Your task to perform on an android device: View the shopping cart on bestbuy. Add "bose soundlink mini" to the cart on bestbuy, then select checkout. Image 0: 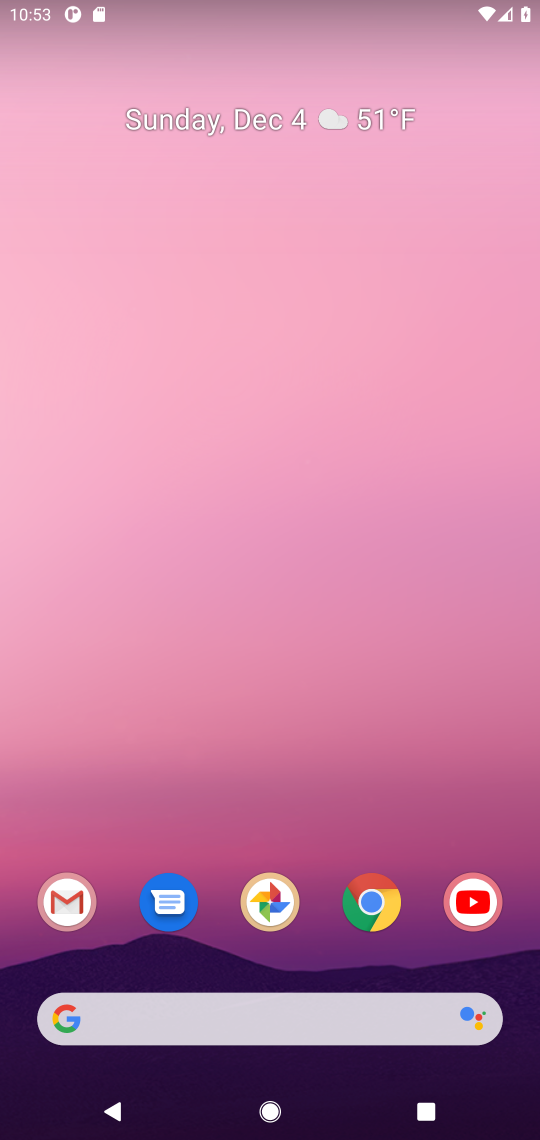
Step 0: click (359, 923)
Your task to perform on an android device: View the shopping cart on bestbuy. Add "bose soundlink mini" to the cart on bestbuy, then select checkout. Image 1: 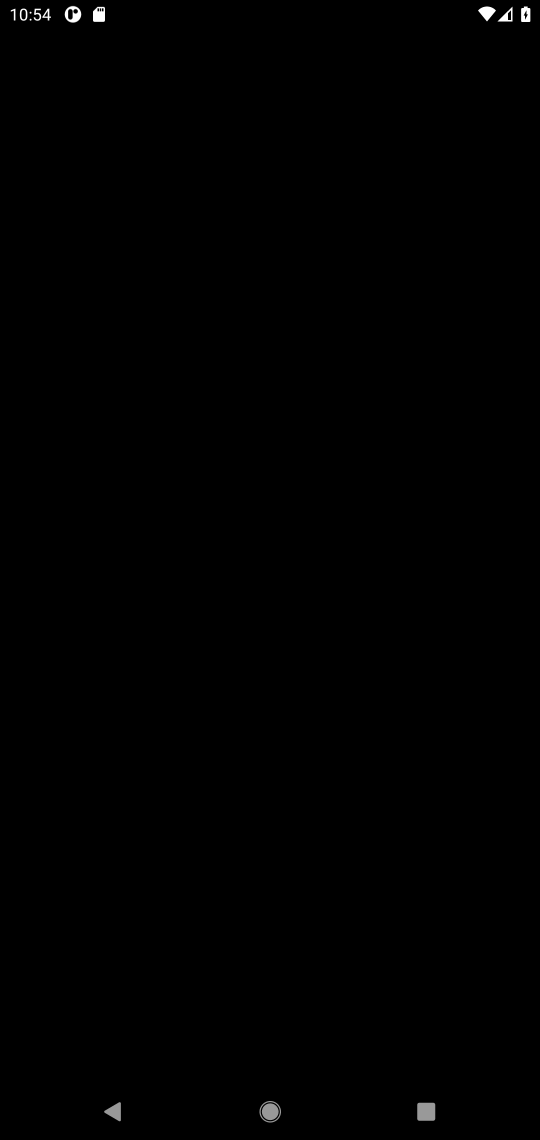
Step 1: press home button
Your task to perform on an android device: View the shopping cart on bestbuy. Add "bose soundlink mini" to the cart on bestbuy, then select checkout. Image 2: 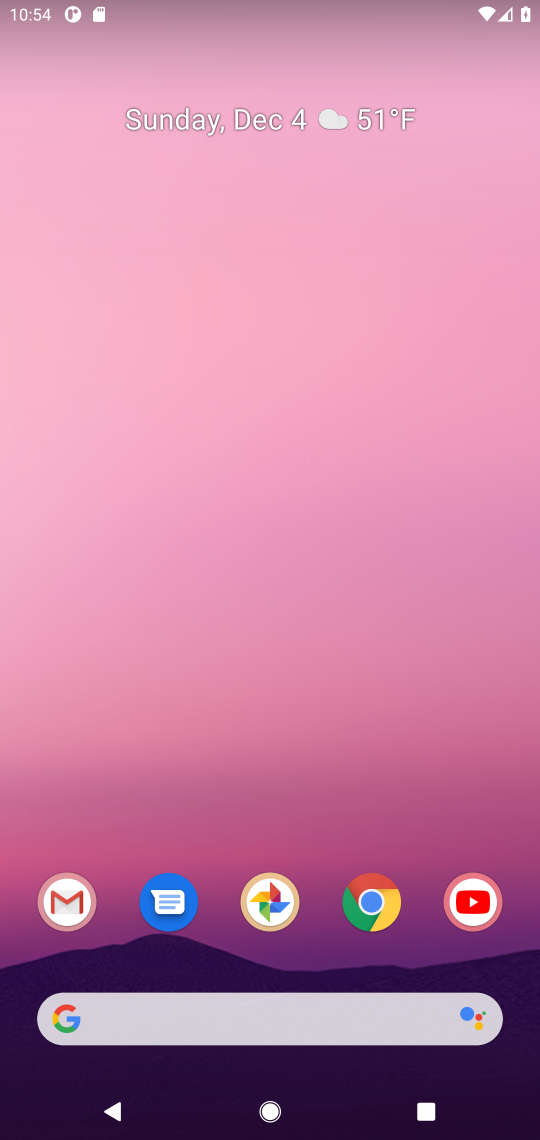
Step 2: press home button
Your task to perform on an android device: View the shopping cart on bestbuy. Add "bose soundlink mini" to the cart on bestbuy, then select checkout. Image 3: 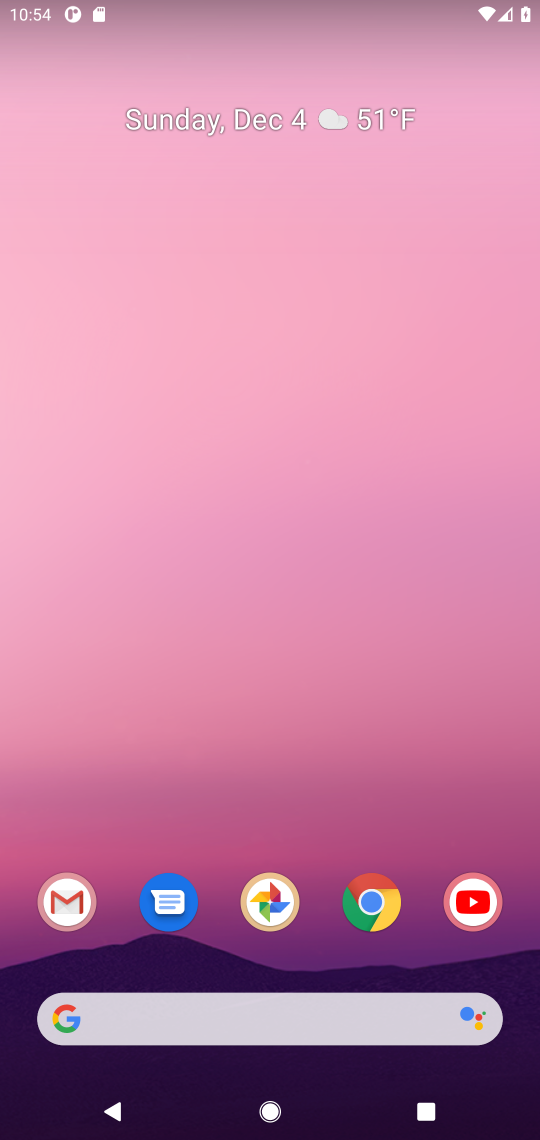
Step 3: press home button
Your task to perform on an android device: View the shopping cart on bestbuy. Add "bose soundlink mini" to the cart on bestbuy, then select checkout. Image 4: 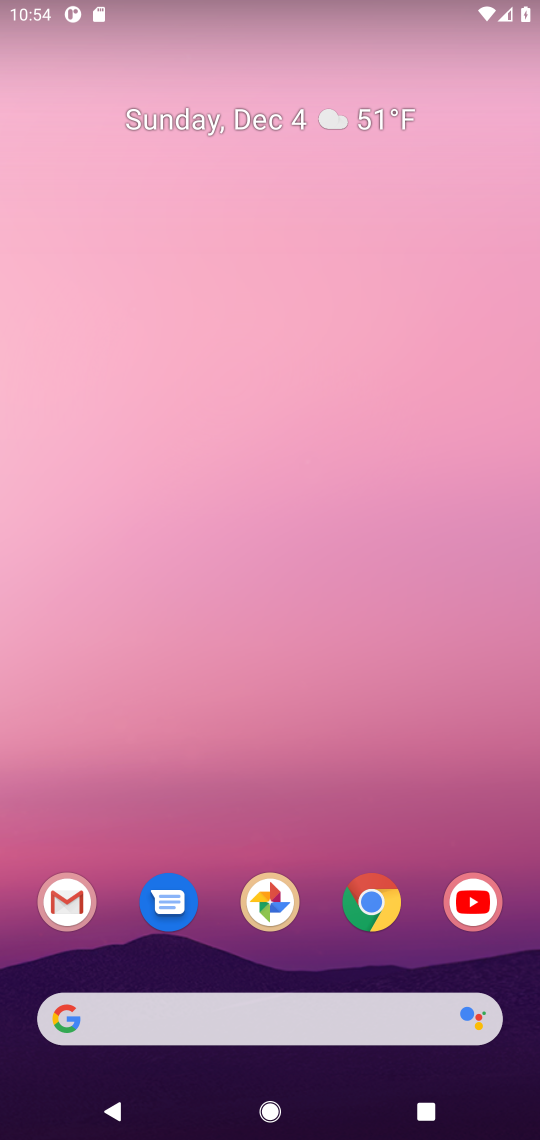
Step 4: click (373, 911)
Your task to perform on an android device: View the shopping cart on bestbuy. Add "bose soundlink mini" to the cart on bestbuy, then select checkout. Image 5: 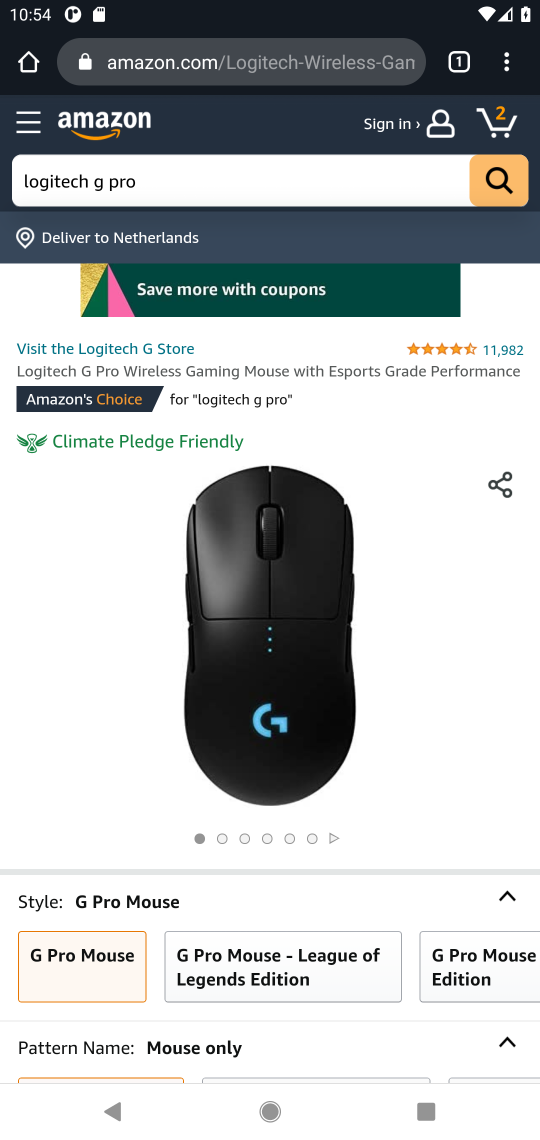
Step 5: click (232, 50)
Your task to perform on an android device: View the shopping cart on bestbuy. Add "bose soundlink mini" to the cart on bestbuy, then select checkout. Image 6: 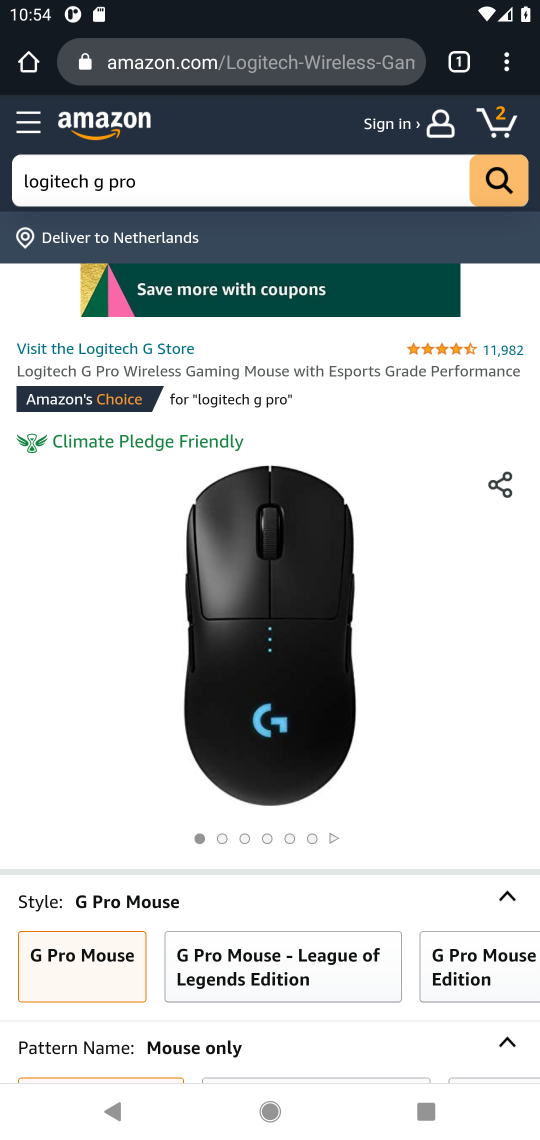
Step 6: click (232, 50)
Your task to perform on an android device: View the shopping cart on bestbuy. Add "bose soundlink mini" to the cart on bestbuy, then select checkout. Image 7: 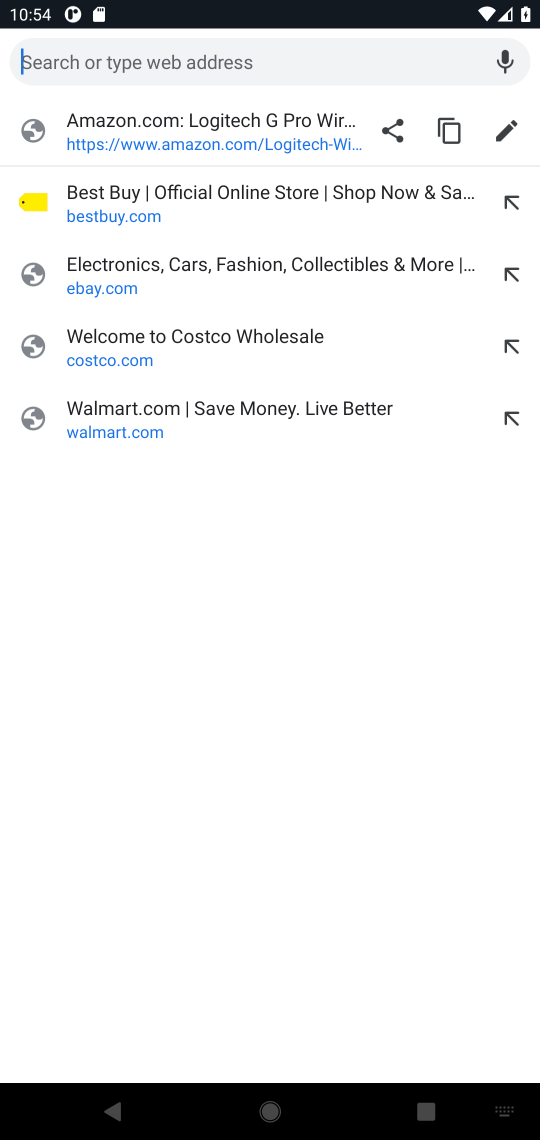
Step 7: click (204, 209)
Your task to perform on an android device: View the shopping cart on bestbuy. Add "bose soundlink mini" to the cart on bestbuy, then select checkout. Image 8: 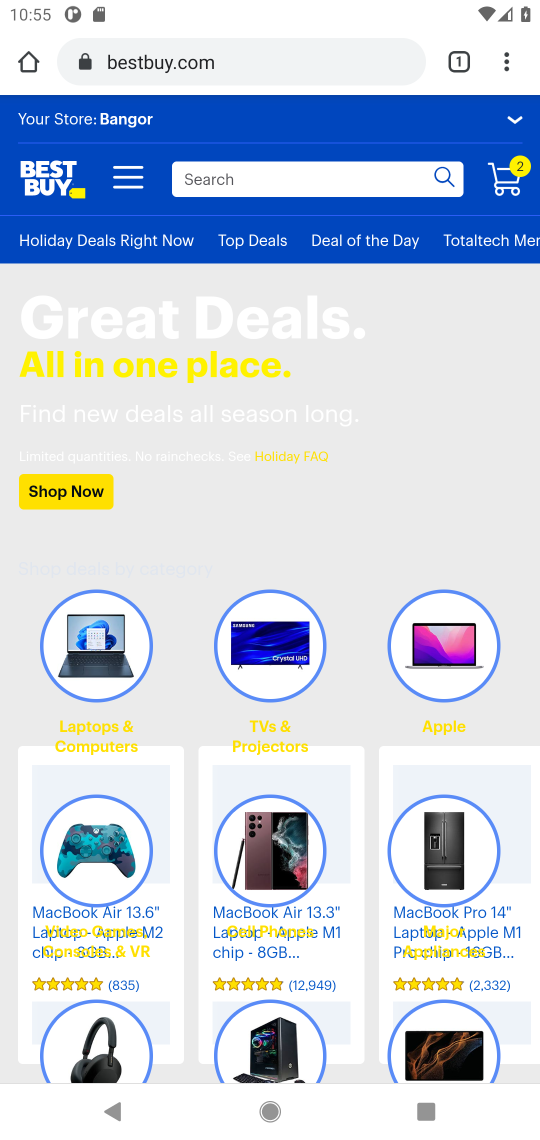
Step 8: click (517, 162)
Your task to perform on an android device: View the shopping cart on bestbuy. Add "bose soundlink mini" to the cart on bestbuy, then select checkout. Image 9: 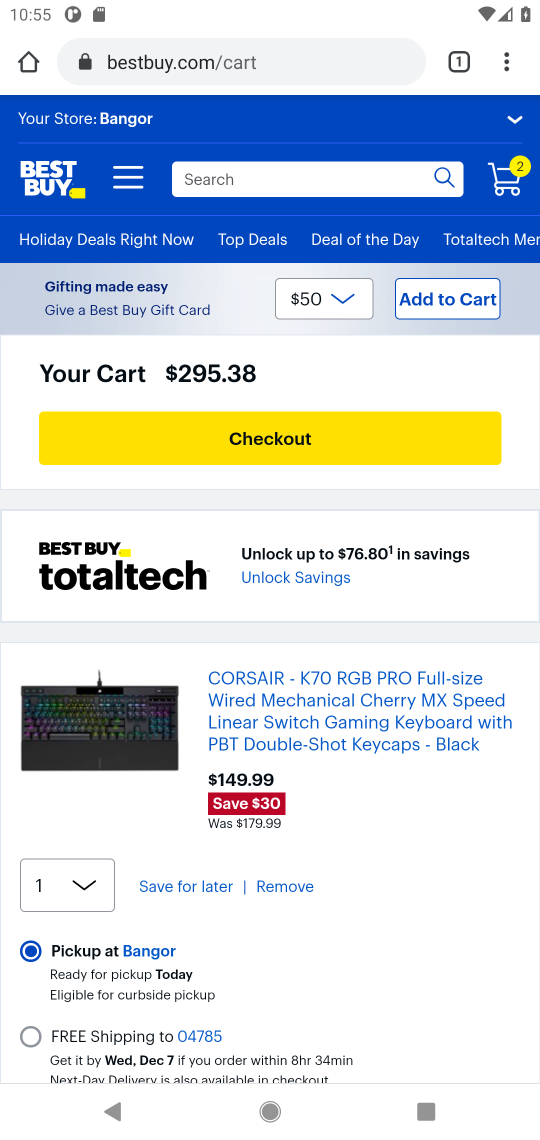
Step 9: click (351, 185)
Your task to perform on an android device: View the shopping cart on bestbuy. Add "bose soundlink mini" to the cart on bestbuy, then select checkout. Image 10: 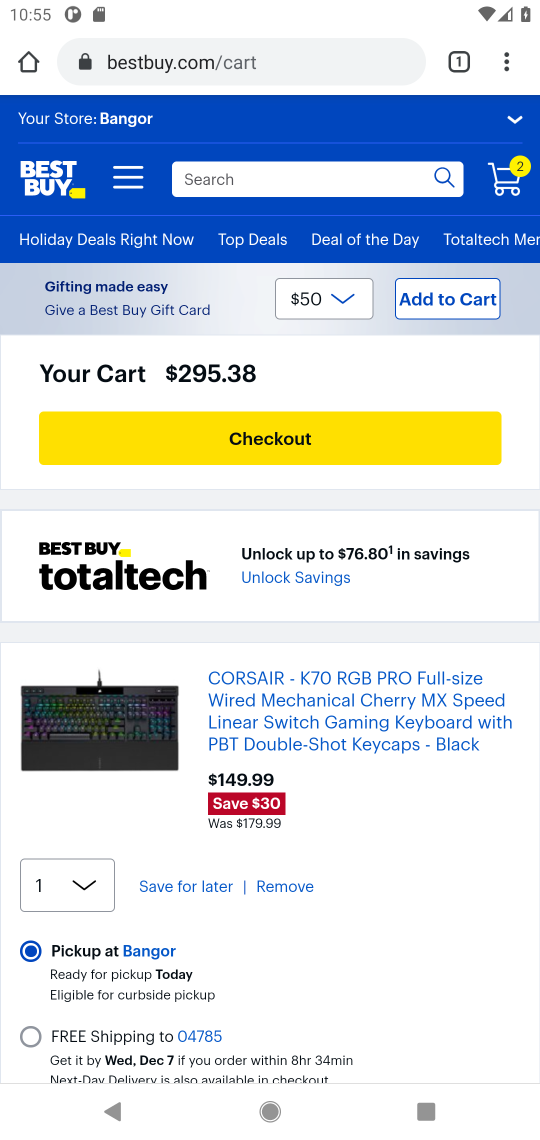
Step 10: click (351, 185)
Your task to perform on an android device: View the shopping cart on bestbuy. Add "bose soundlink mini" to the cart on bestbuy, then select checkout. Image 11: 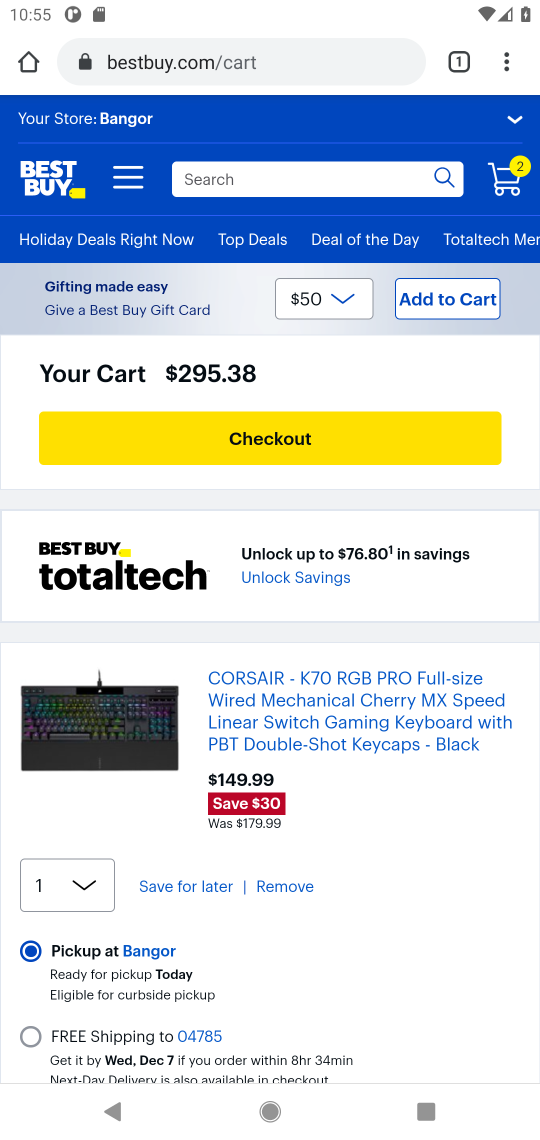
Step 11: type "bose soundlink mini"
Your task to perform on an android device: View the shopping cart on bestbuy. Add "bose soundlink mini" to the cart on bestbuy, then select checkout. Image 12: 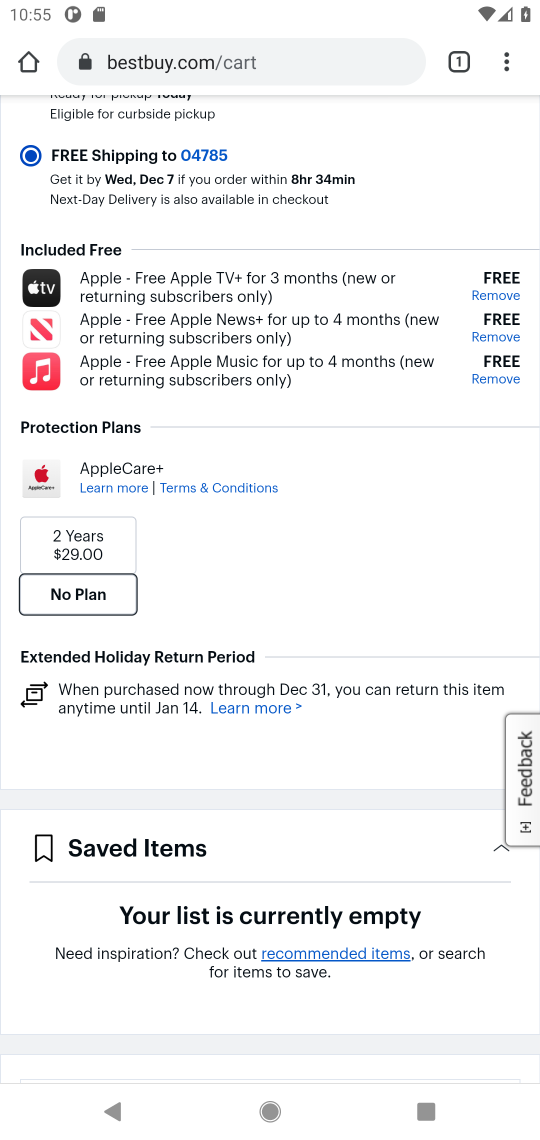
Step 12: drag from (363, 265) to (401, 876)
Your task to perform on an android device: View the shopping cart on bestbuy. Add "bose soundlink mini" to the cart on bestbuy, then select checkout. Image 13: 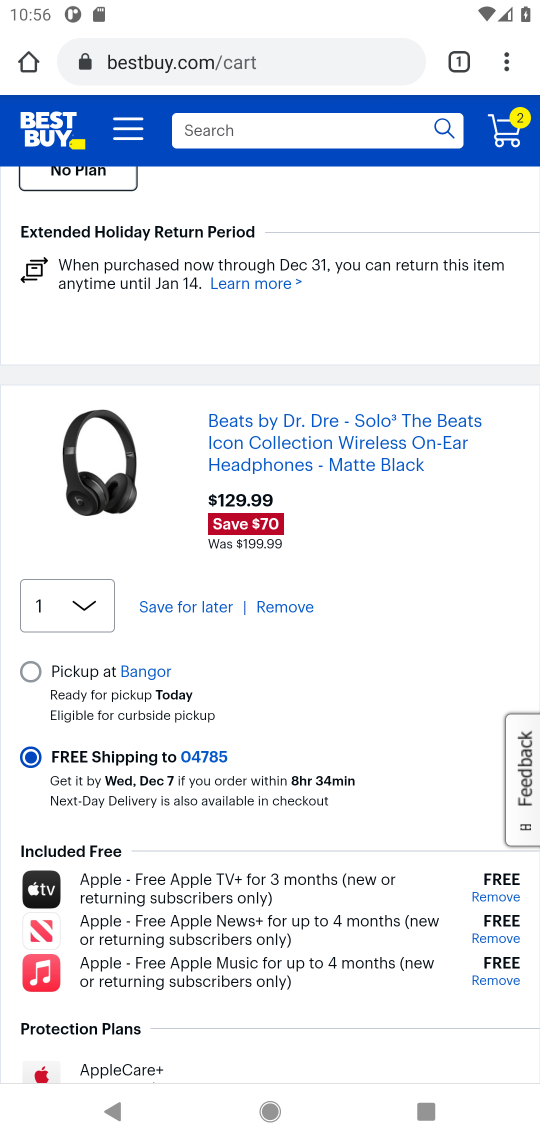
Step 13: drag from (364, 188) to (389, 1072)
Your task to perform on an android device: View the shopping cart on bestbuy. Add "bose soundlink mini" to the cart on bestbuy, then select checkout. Image 14: 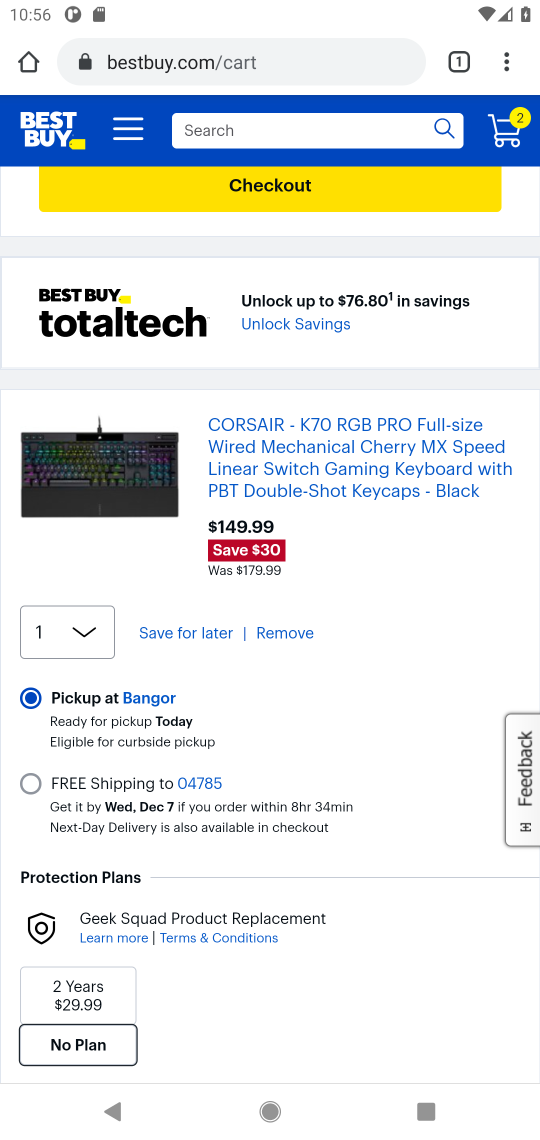
Step 14: click (332, 137)
Your task to perform on an android device: View the shopping cart on bestbuy. Add "bose soundlink mini" to the cart on bestbuy, then select checkout. Image 15: 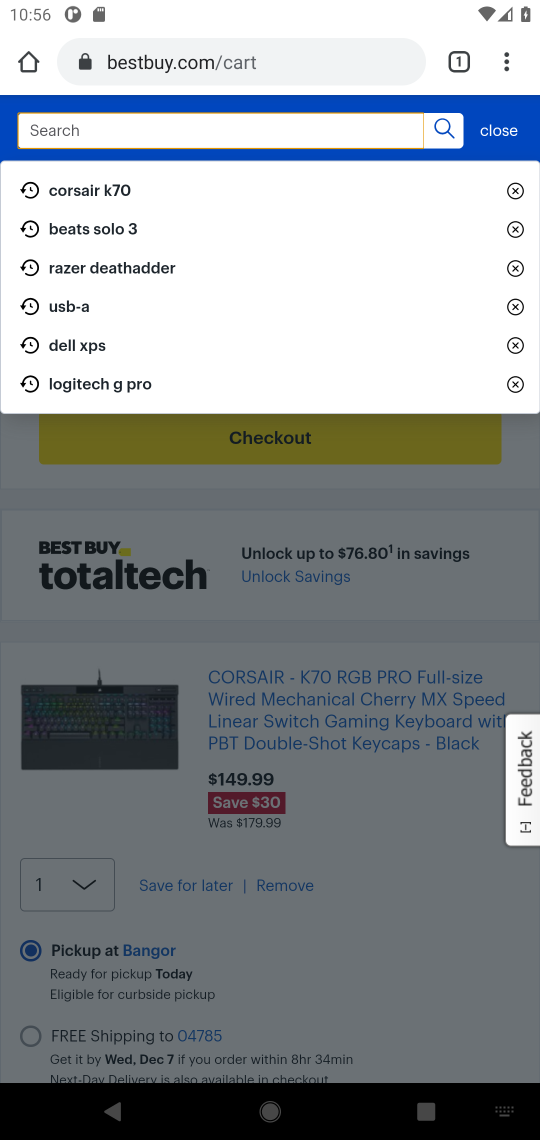
Step 15: type "bose soundlink mini"
Your task to perform on an android device: View the shopping cart on bestbuy. Add "bose soundlink mini" to the cart on bestbuy, then select checkout. Image 16: 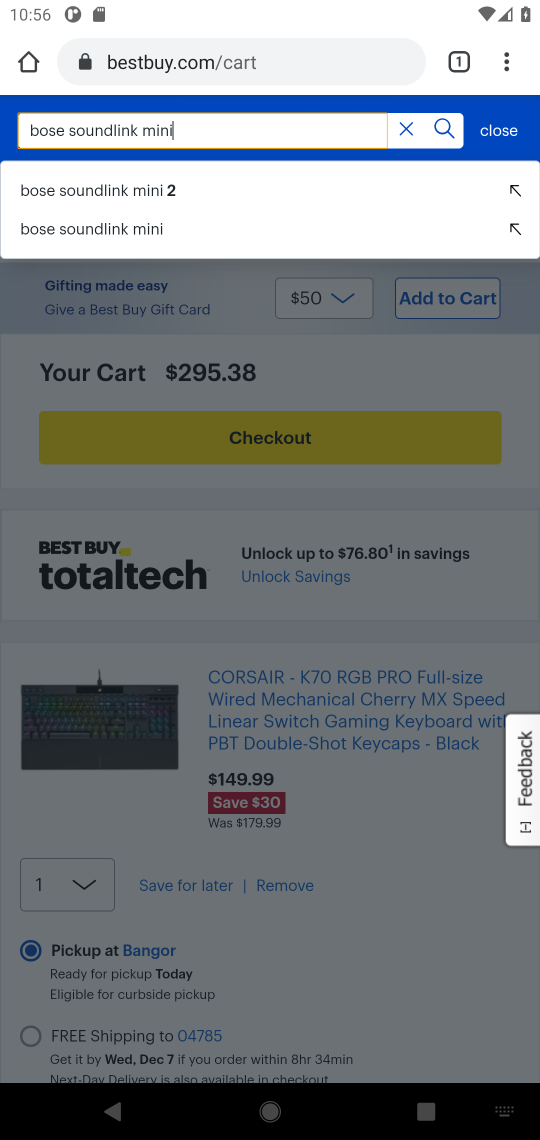
Step 16: click (454, 124)
Your task to perform on an android device: View the shopping cart on bestbuy. Add "bose soundlink mini" to the cart on bestbuy, then select checkout. Image 17: 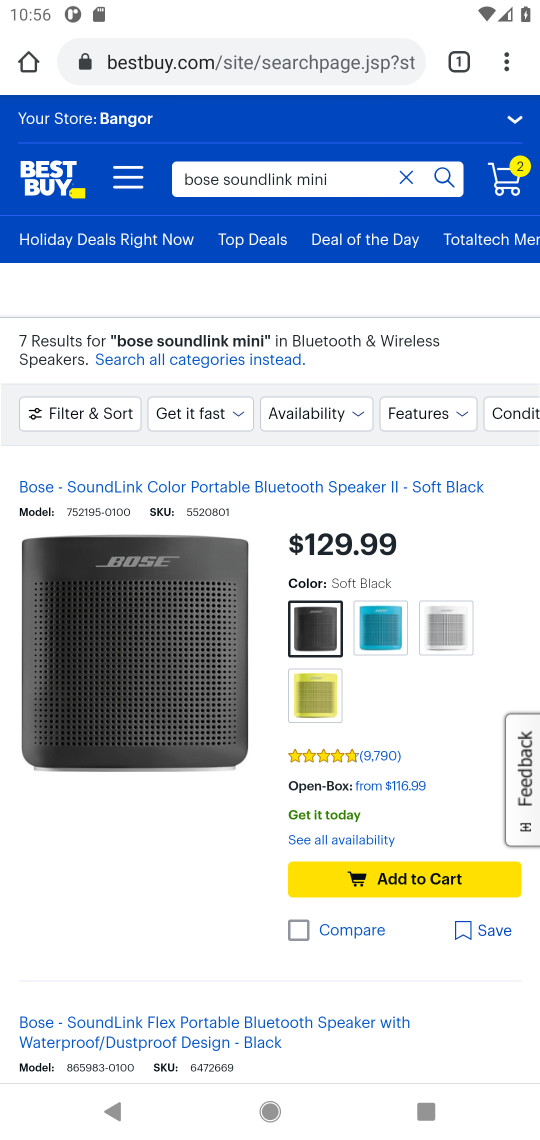
Step 17: click (509, 189)
Your task to perform on an android device: View the shopping cart on bestbuy. Add "bose soundlink mini" to the cart on bestbuy, then select checkout. Image 18: 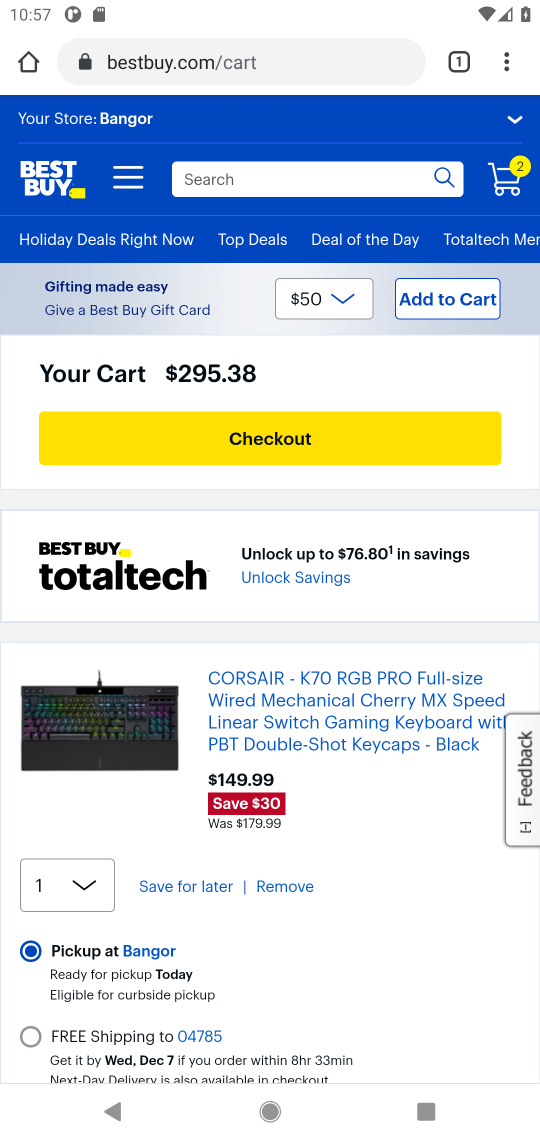
Step 18: click (277, 181)
Your task to perform on an android device: View the shopping cart on bestbuy. Add "bose soundlink mini" to the cart on bestbuy, then select checkout. Image 19: 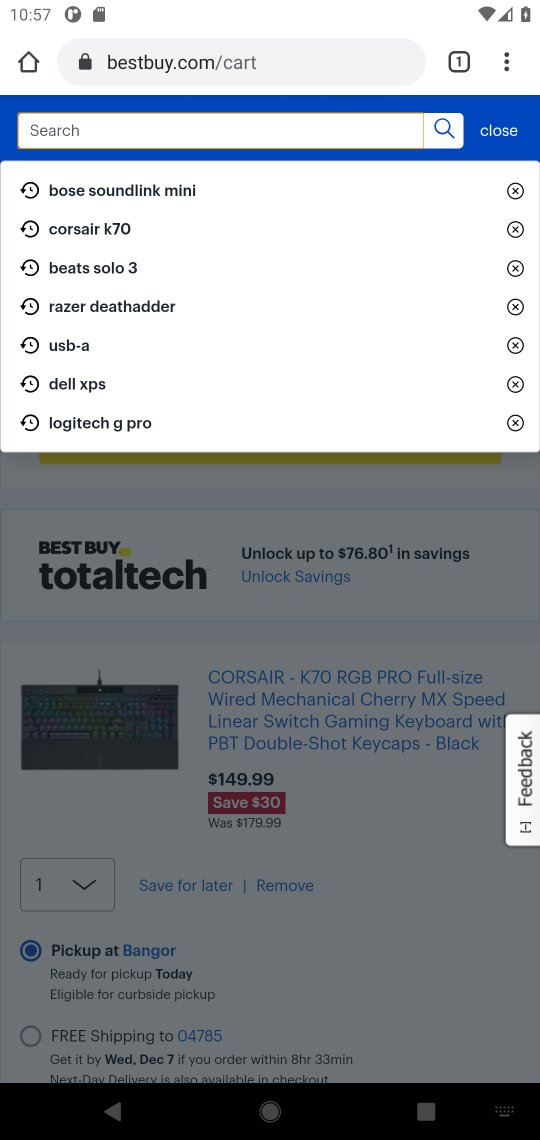
Step 19: type "bose soundlink mini"
Your task to perform on an android device: View the shopping cart on bestbuy. Add "bose soundlink mini" to the cart on bestbuy, then select checkout. Image 20: 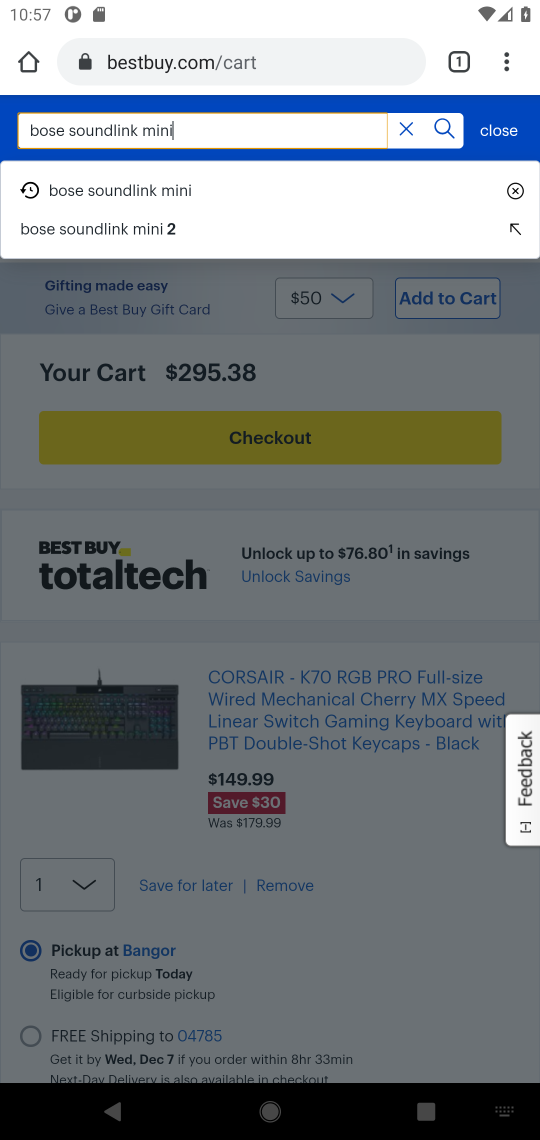
Step 20: click (446, 118)
Your task to perform on an android device: View the shopping cart on bestbuy. Add "bose soundlink mini" to the cart on bestbuy, then select checkout. Image 21: 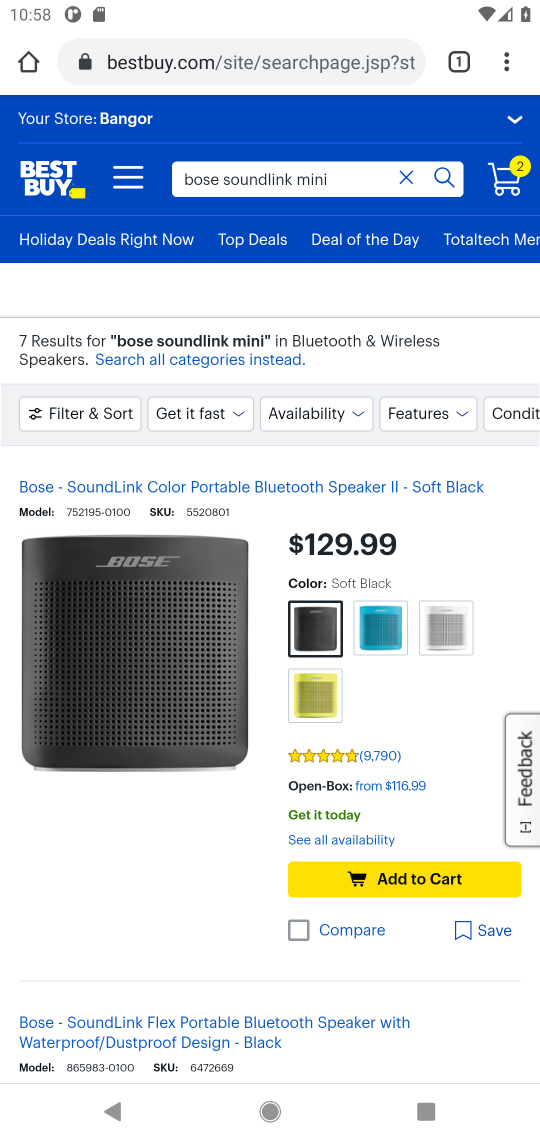
Step 21: click (380, 880)
Your task to perform on an android device: View the shopping cart on bestbuy. Add "bose soundlink mini" to the cart on bestbuy, then select checkout. Image 22: 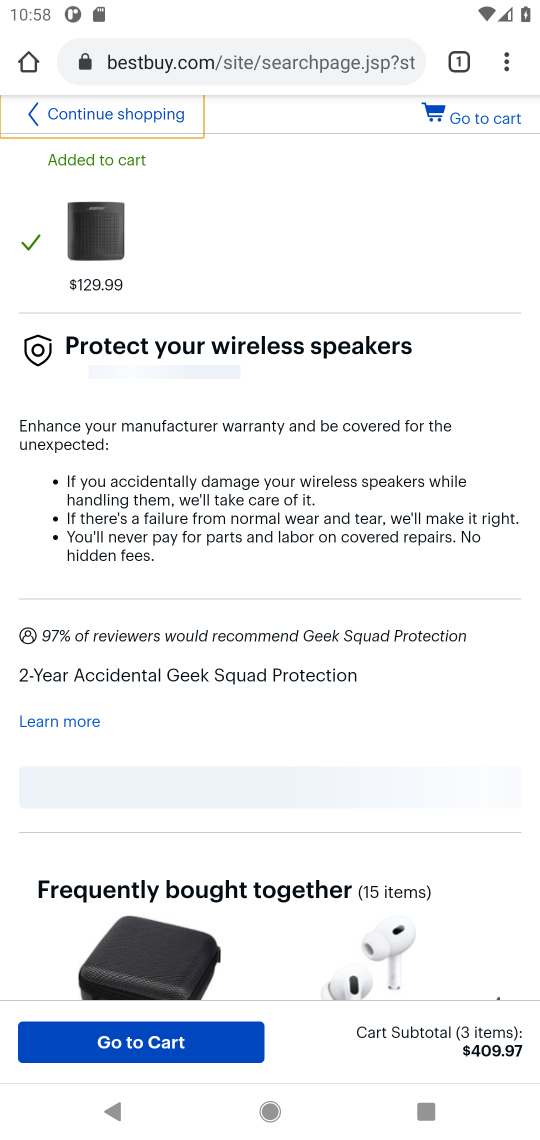
Step 22: click (154, 1026)
Your task to perform on an android device: View the shopping cart on bestbuy. Add "bose soundlink mini" to the cart on bestbuy, then select checkout. Image 23: 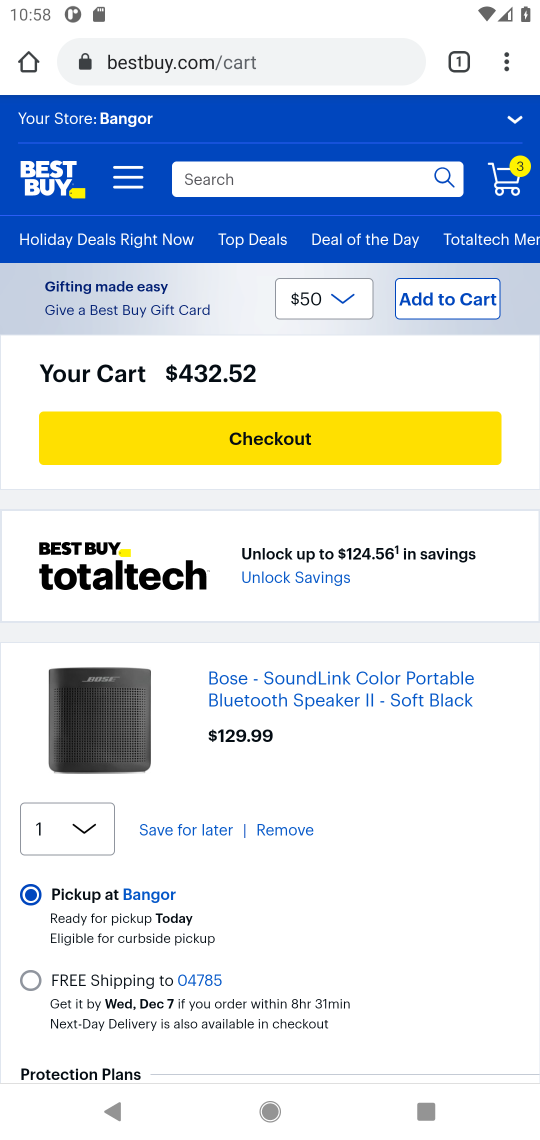
Step 23: click (274, 454)
Your task to perform on an android device: View the shopping cart on bestbuy. Add "bose soundlink mini" to the cart on bestbuy, then select checkout. Image 24: 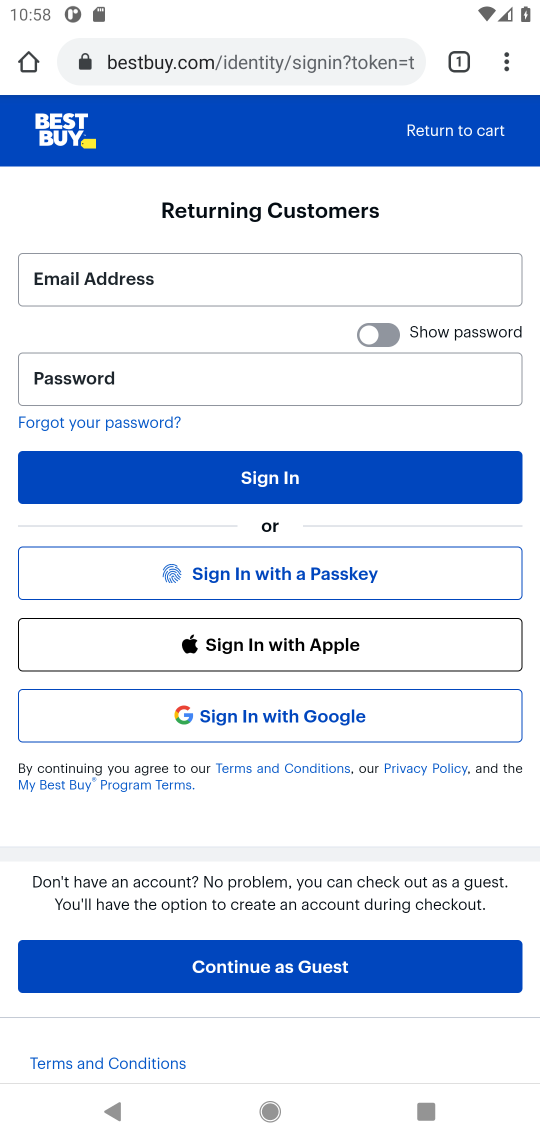
Step 24: task complete